Your task to perform on an android device: Open calendar and show me the third week of next month Image 0: 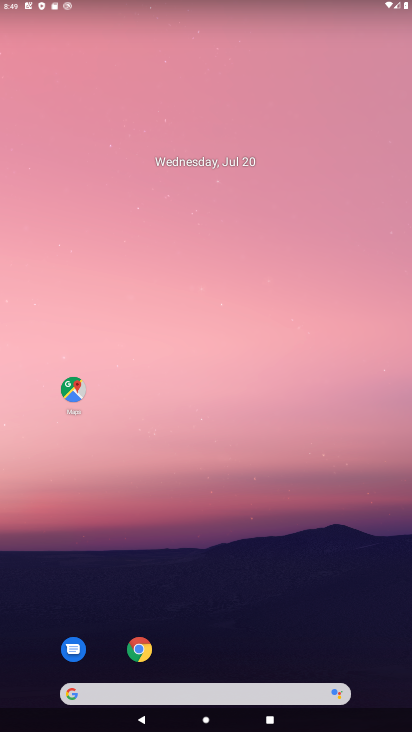
Step 0: drag from (181, 691) to (284, 24)
Your task to perform on an android device: Open calendar and show me the third week of next month Image 1: 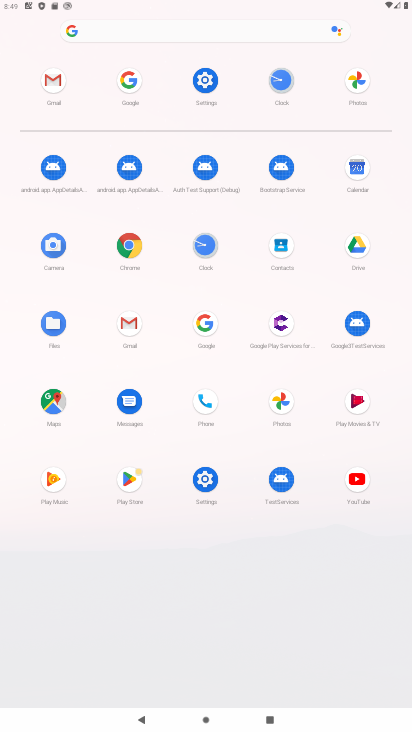
Step 1: click (359, 170)
Your task to perform on an android device: Open calendar and show me the third week of next month Image 2: 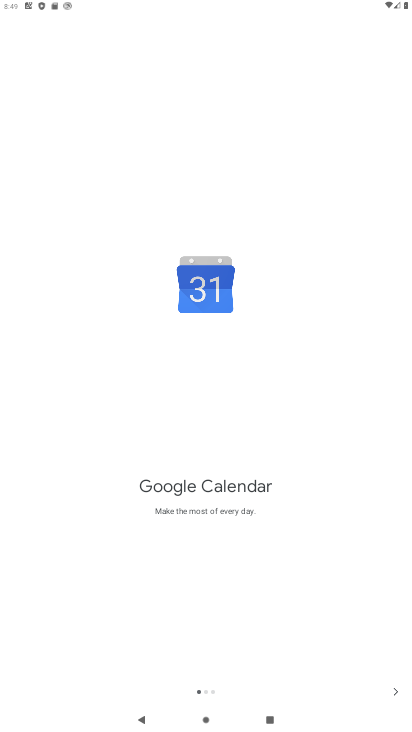
Step 2: click (398, 691)
Your task to perform on an android device: Open calendar and show me the third week of next month Image 3: 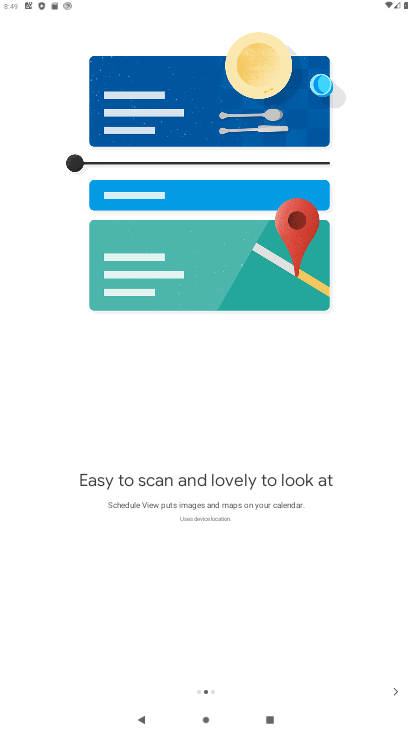
Step 3: click (398, 691)
Your task to perform on an android device: Open calendar and show me the third week of next month Image 4: 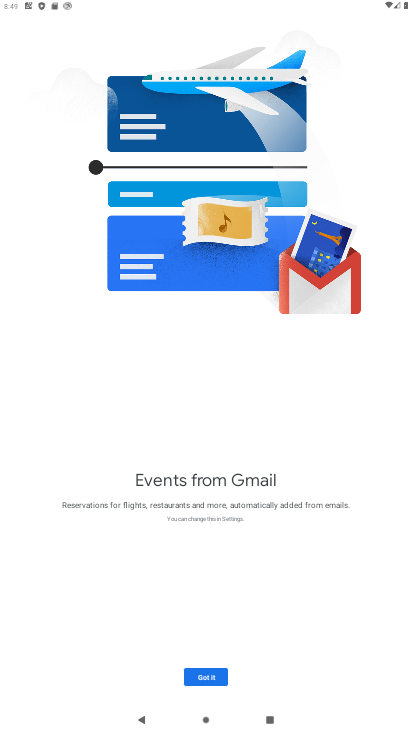
Step 4: click (212, 679)
Your task to perform on an android device: Open calendar and show me the third week of next month Image 5: 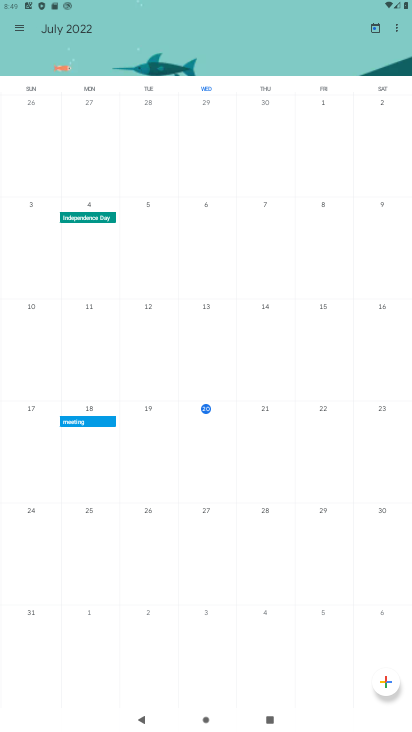
Step 5: drag from (391, 353) to (9, 418)
Your task to perform on an android device: Open calendar and show me the third week of next month Image 6: 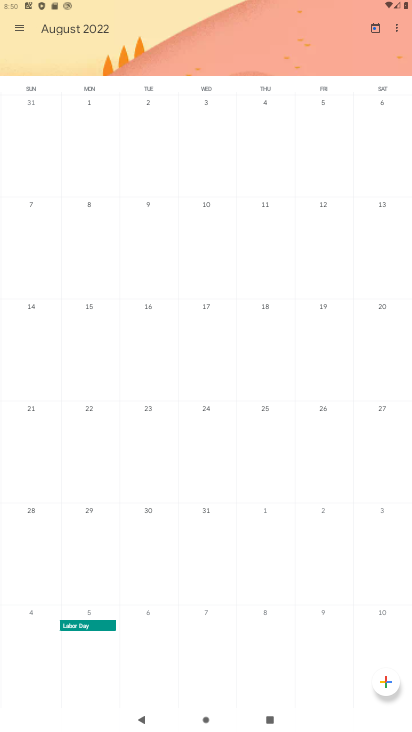
Step 6: click (90, 324)
Your task to perform on an android device: Open calendar and show me the third week of next month Image 7: 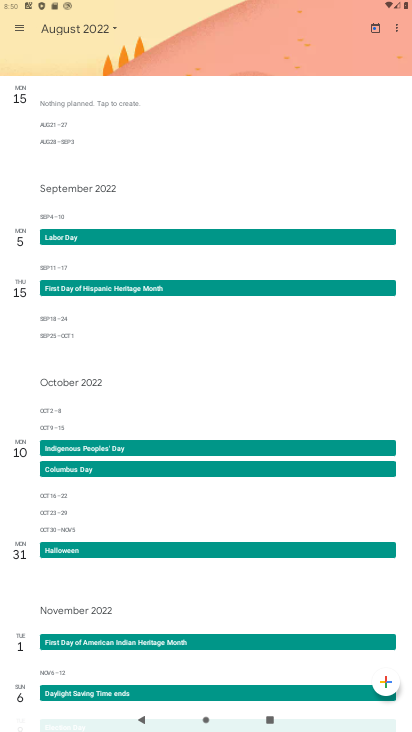
Step 7: click (16, 23)
Your task to perform on an android device: Open calendar and show me the third week of next month Image 8: 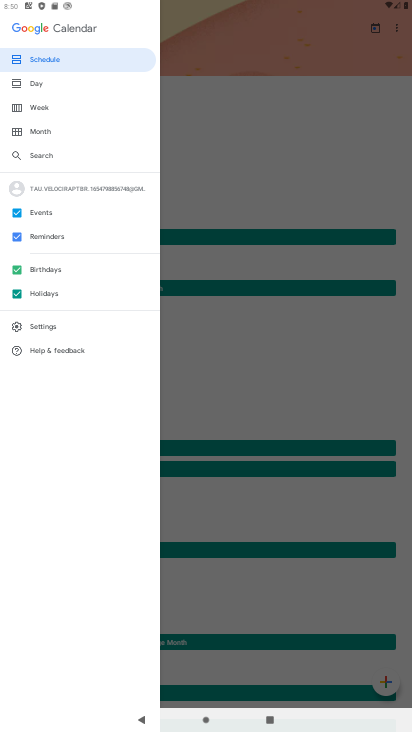
Step 8: click (45, 101)
Your task to perform on an android device: Open calendar and show me the third week of next month Image 9: 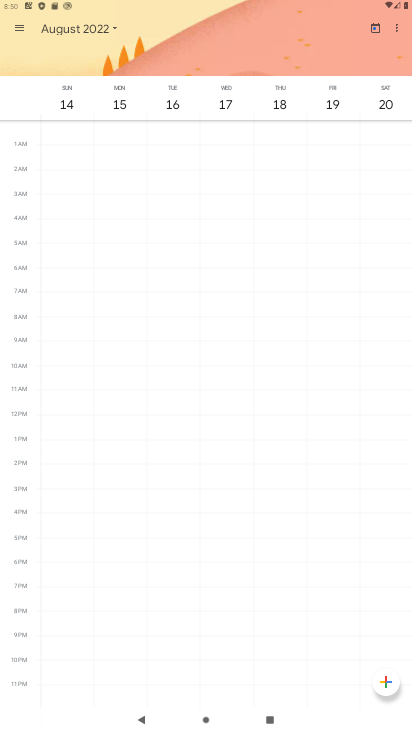
Step 9: task complete